Your task to perform on an android device: toggle airplane mode Image 0: 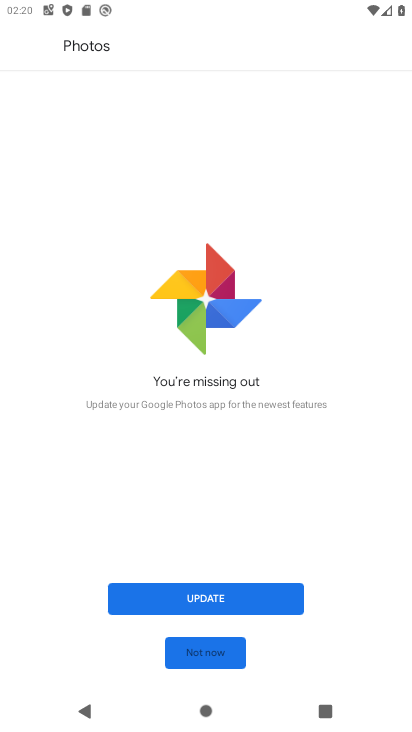
Step 0: press home button
Your task to perform on an android device: toggle airplane mode Image 1: 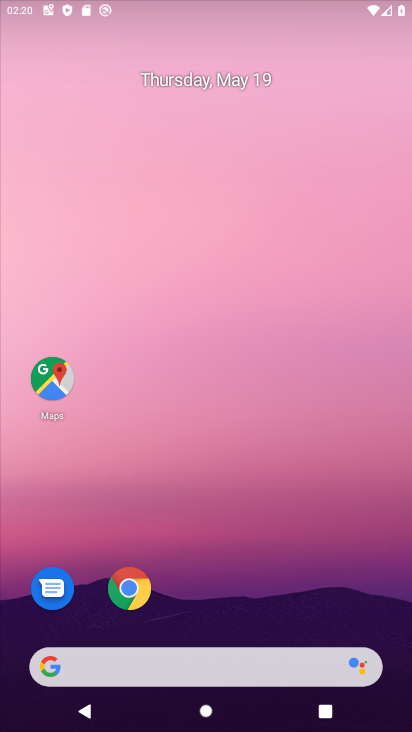
Step 1: drag from (230, 611) to (252, 115)
Your task to perform on an android device: toggle airplane mode Image 2: 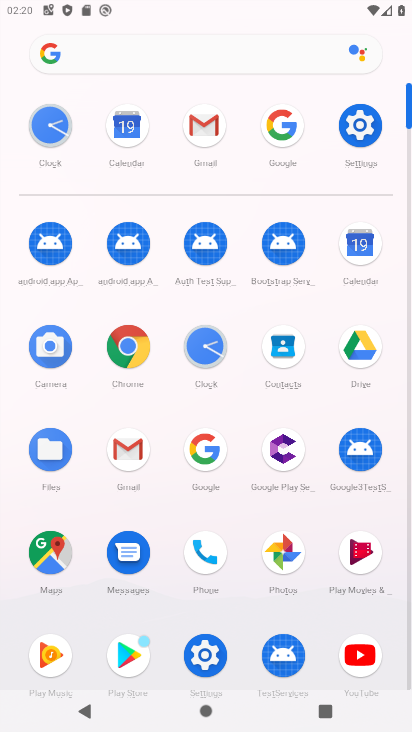
Step 2: click (357, 129)
Your task to perform on an android device: toggle airplane mode Image 3: 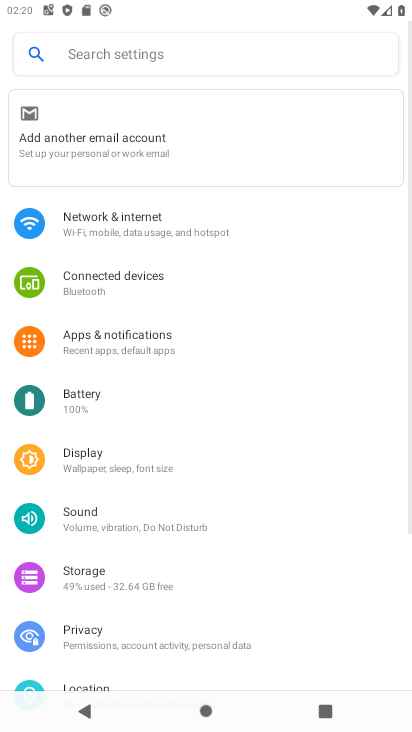
Step 3: click (147, 222)
Your task to perform on an android device: toggle airplane mode Image 4: 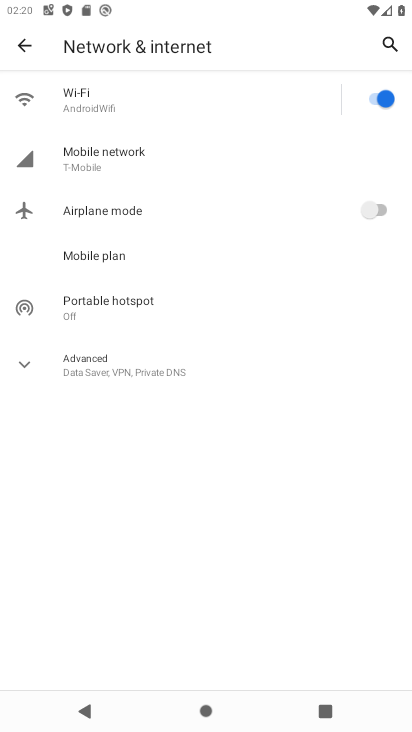
Step 4: click (378, 210)
Your task to perform on an android device: toggle airplane mode Image 5: 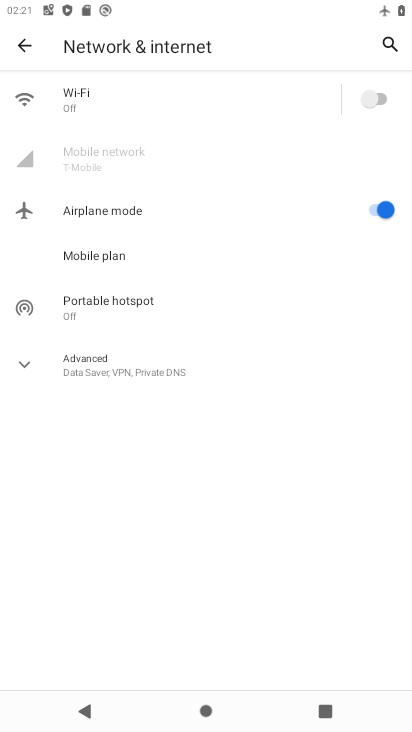
Step 5: task complete